Your task to perform on an android device: turn on improve location accuracy Image 0: 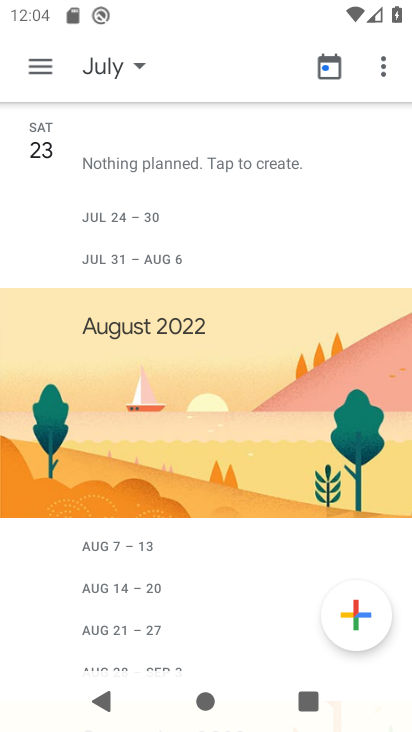
Step 0: press home button
Your task to perform on an android device: turn on improve location accuracy Image 1: 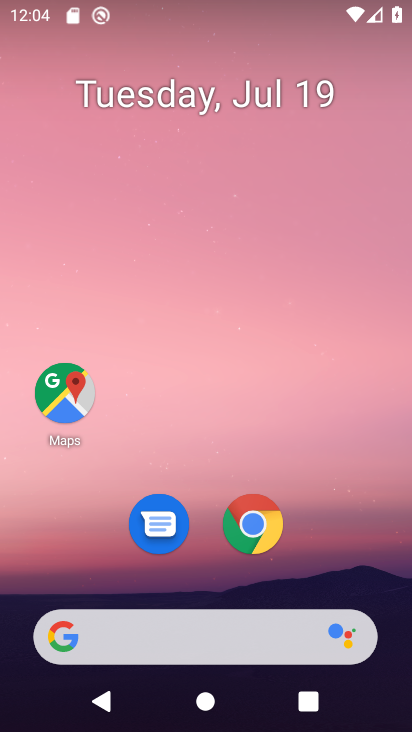
Step 1: drag from (321, 577) to (333, 28)
Your task to perform on an android device: turn on improve location accuracy Image 2: 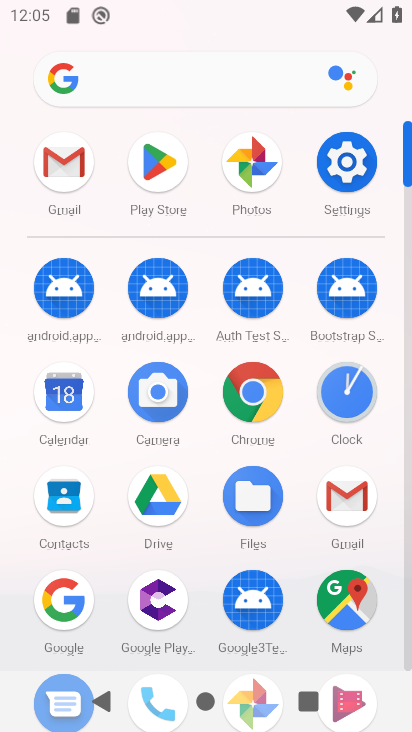
Step 2: click (354, 181)
Your task to perform on an android device: turn on improve location accuracy Image 3: 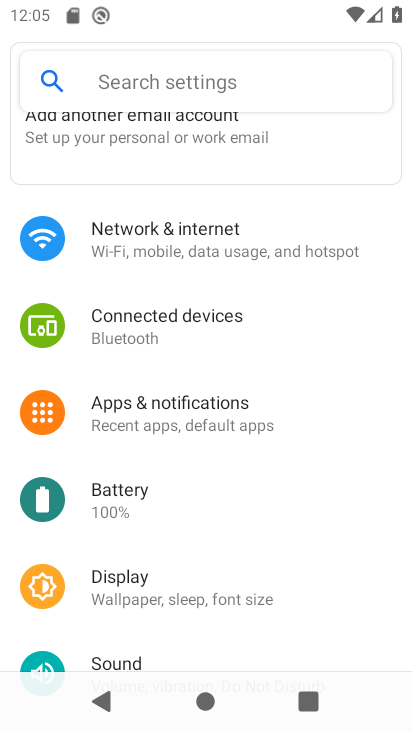
Step 3: drag from (246, 560) to (247, 149)
Your task to perform on an android device: turn on improve location accuracy Image 4: 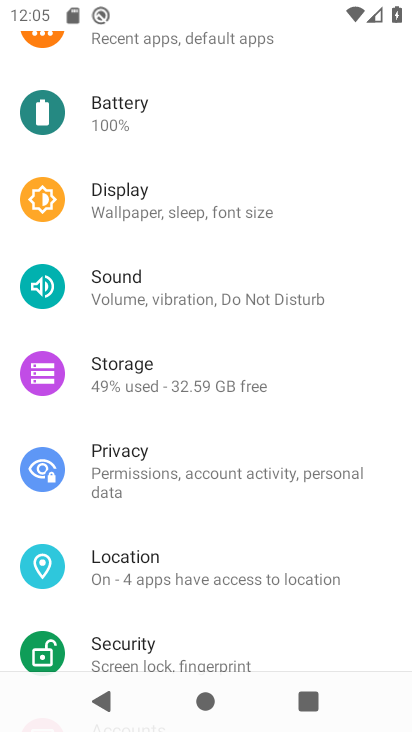
Step 4: click (211, 558)
Your task to perform on an android device: turn on improve location accuracy Image 5: 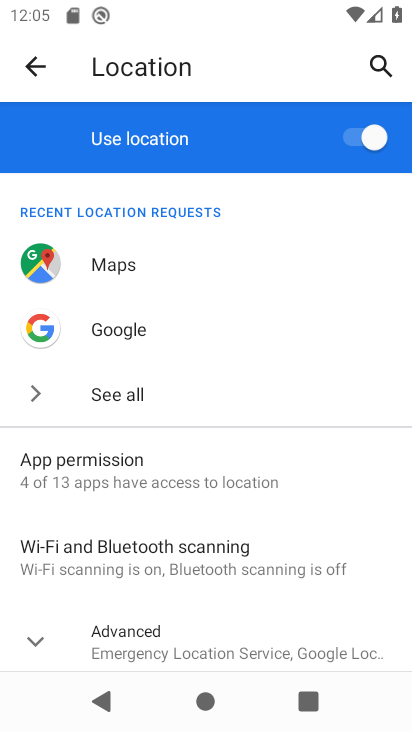
Step 5: click (108, 478)
Your task to perform on an android device: turn on improve location accuracy Image 6: 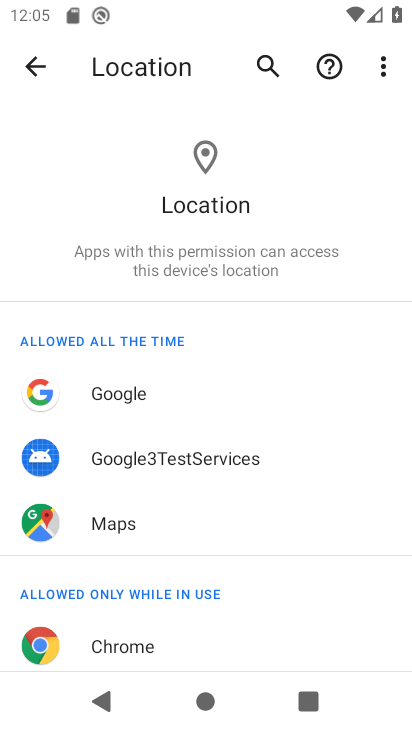
Step 6: drag from (224, 586) to (235, 128)
Your task to perform on an android device: turn on improve location accuracy Image 7: 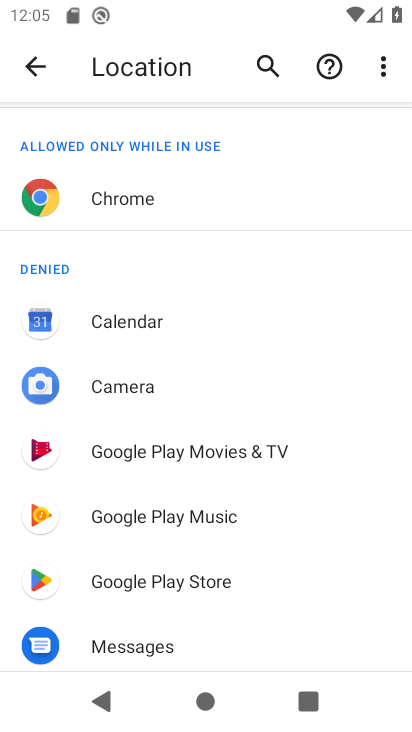
Step 7: drag from (200, 548) to (212, 185)
Your task to perform on an android device: turn on improve location accuracy Image 8: 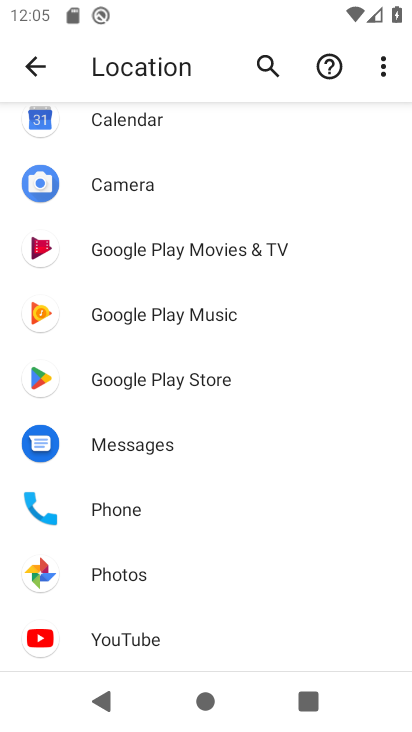
Step 8: click (45, 61)
Your task to perform on an android device: turn on improve location accuracy Image 9: 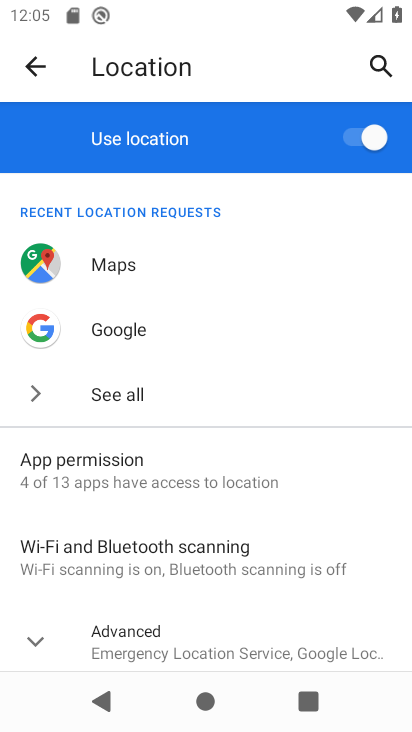
Step 9: click (34, 636)
Your task to perform on an android device: turn on improve location accuracy Image 10: 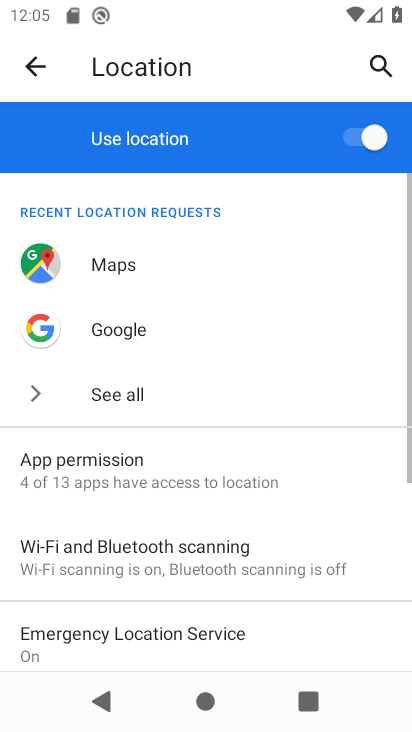
Step 10: drag from (202, 538) to (206, 270)
Your task to perform on an android device: turn on improve location accuracy Image 11: 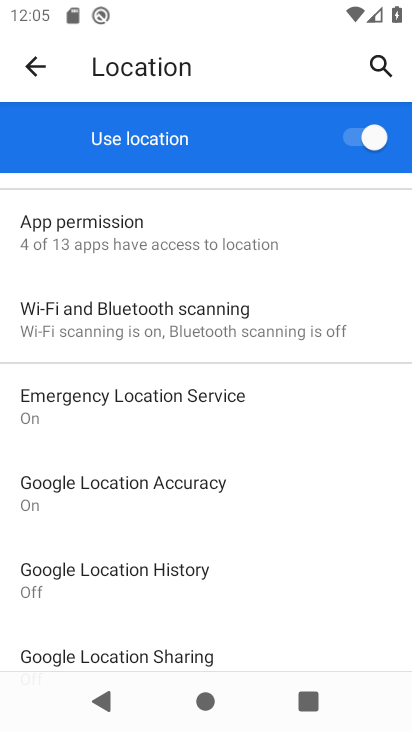
Step 11: click (181, 493)
Your task to perform on an android device: turn on improve location accuracy Image 12: 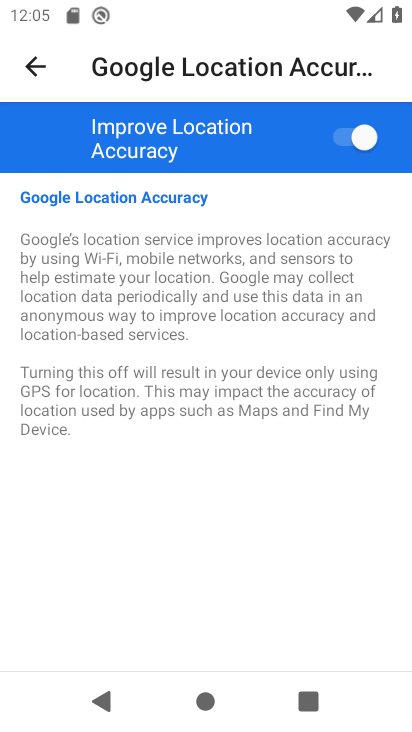
Step 12: task complete